Your task to perform on an android device: see sites visited before in the chrome app Image 0: 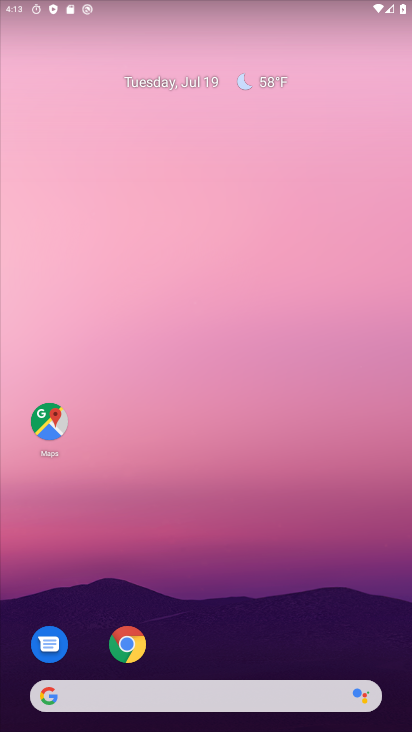
Step 0: drag from (258, 472) to (233, 105)
Your task to perform on an android device: see sites visited before in the chrome app Image 1: 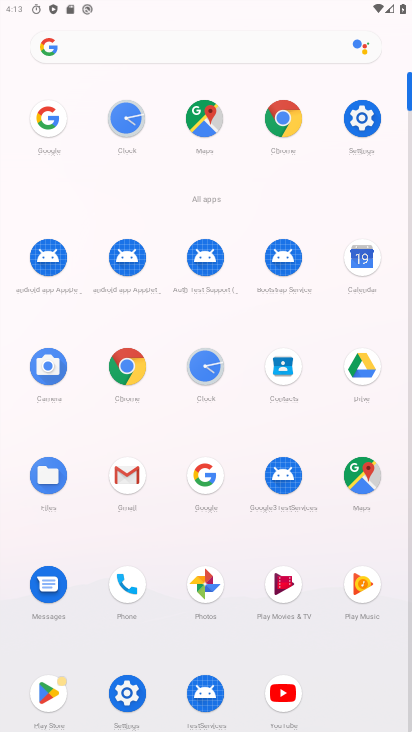
Step 1: click (141, 368)
Your task to perform on an android device: see sites visited before in the chrome app Image 2: 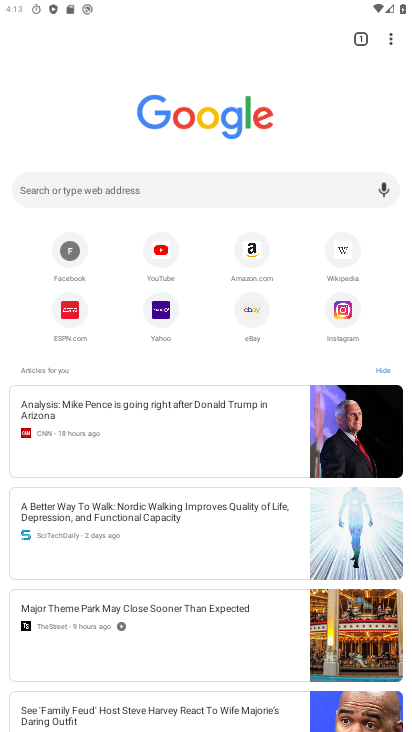
Step 2: task complete